Your task to perform on an android device: turn on wifi Image 0: 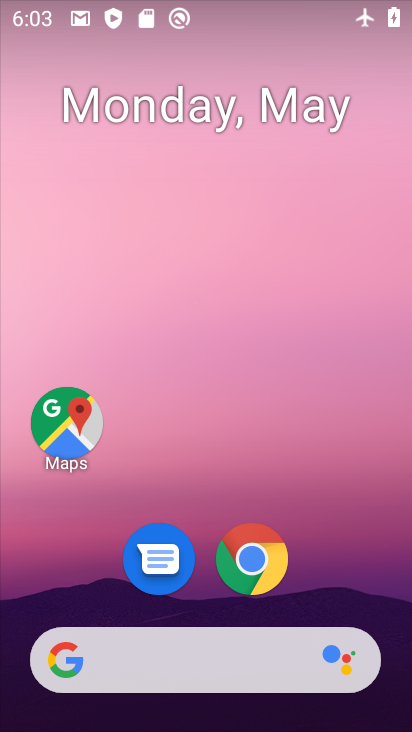
Step 0: drag from (343, 573) to (242, 75)
Your task to perform on an android device: turn on wifi Image 1: 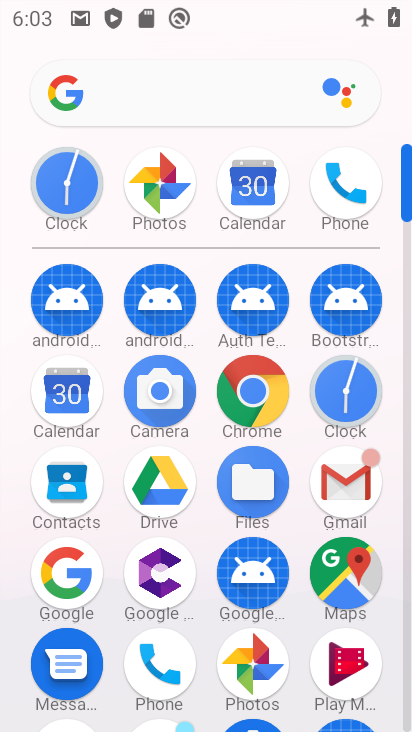
Step 1: drag from (202, 521) to (156, 138)
Your task to perform on an android device: turn on wifi Image 2: 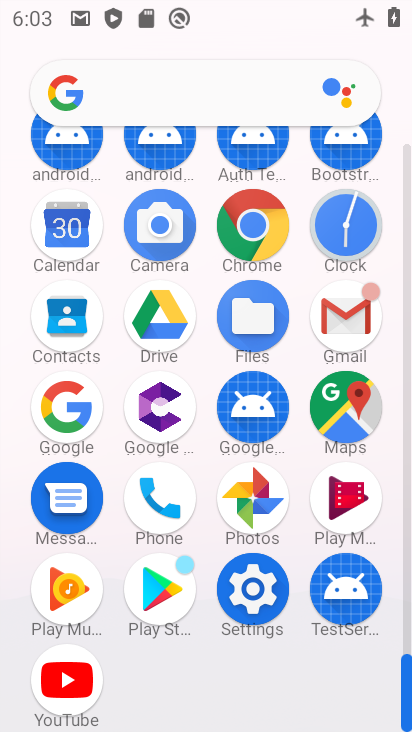
Step 2: click (245, 594)
Your task to perform on an android device: turn on wifi Image 3: 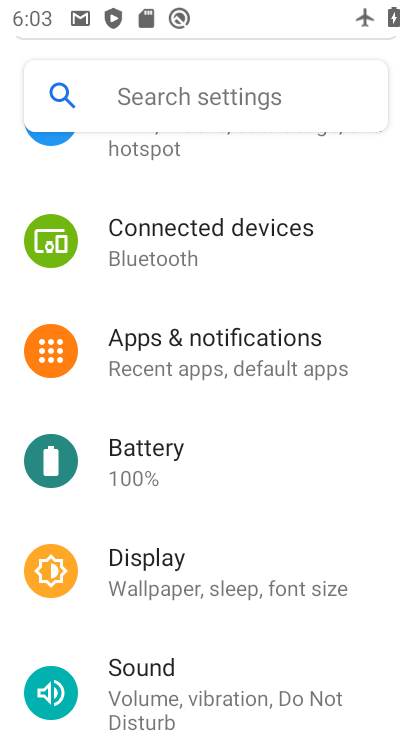
Step 3: drag from (215, 184) to (254, 566)
Your task to perform on an android device: turn on wifi Image 4: 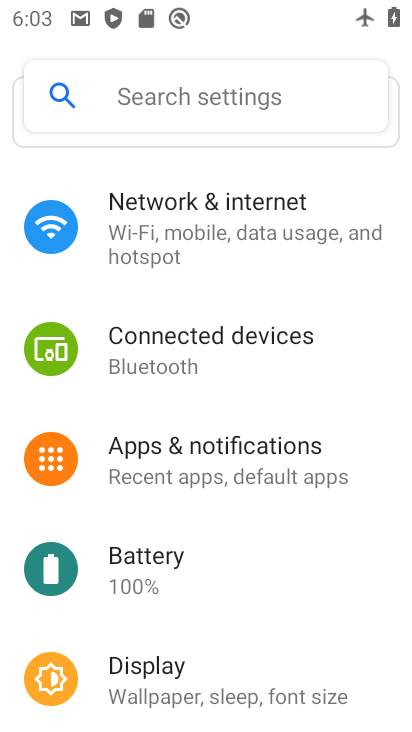
Step 4: click (188, 226)
Your task to perform on an android device: turn on wifi Image 5: 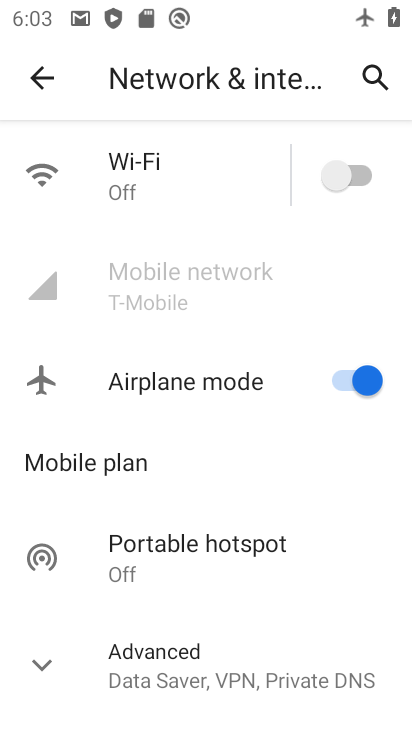
Step 5: click (345, 174)
Your task to perform on an android device: turn on wifi Image 6: 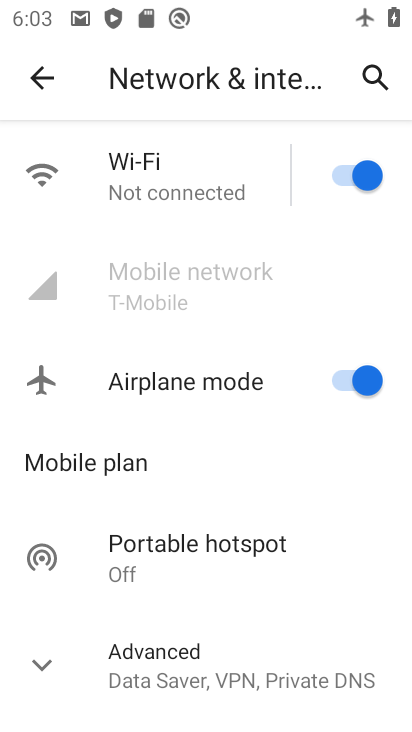
Step 6: task complete